Your task to perform on an android device: manage bookmarks in the chrome app Image 0: 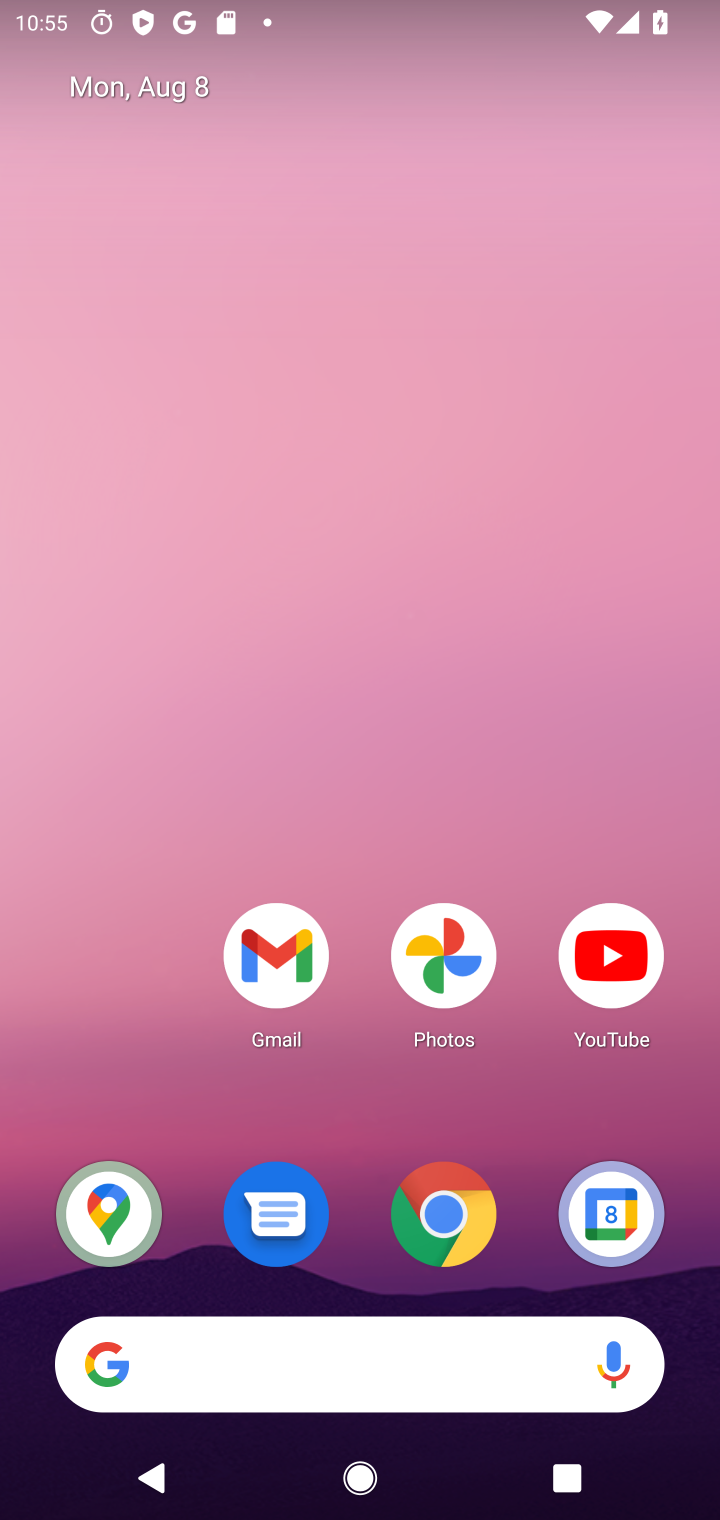
Step 0: click (422, 1181)
Your task to perform on an android device: manage bookmarks in the chrome app Image 1: 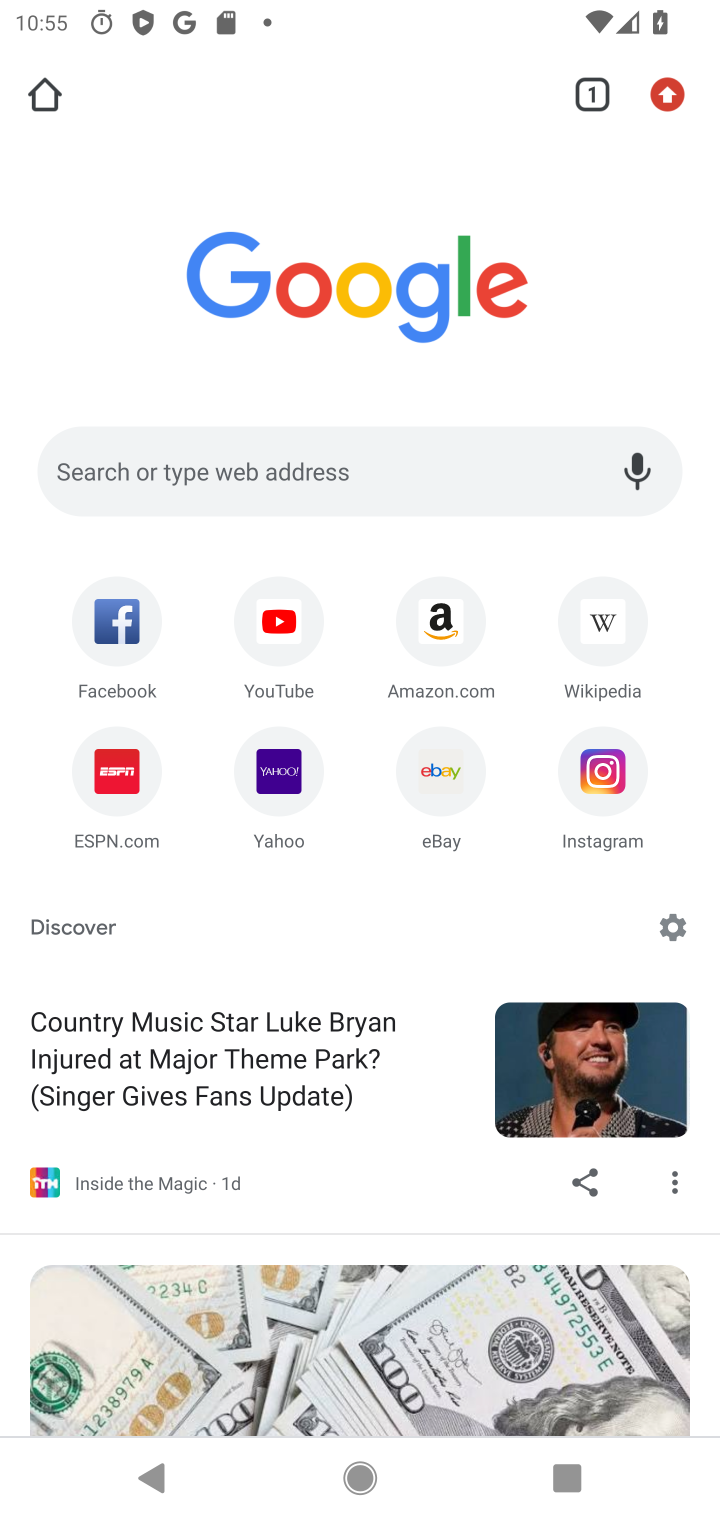
Step 1: click (667, 94)
Your task to perform on an android device: manage bookmarks in the chrome app Image 2: 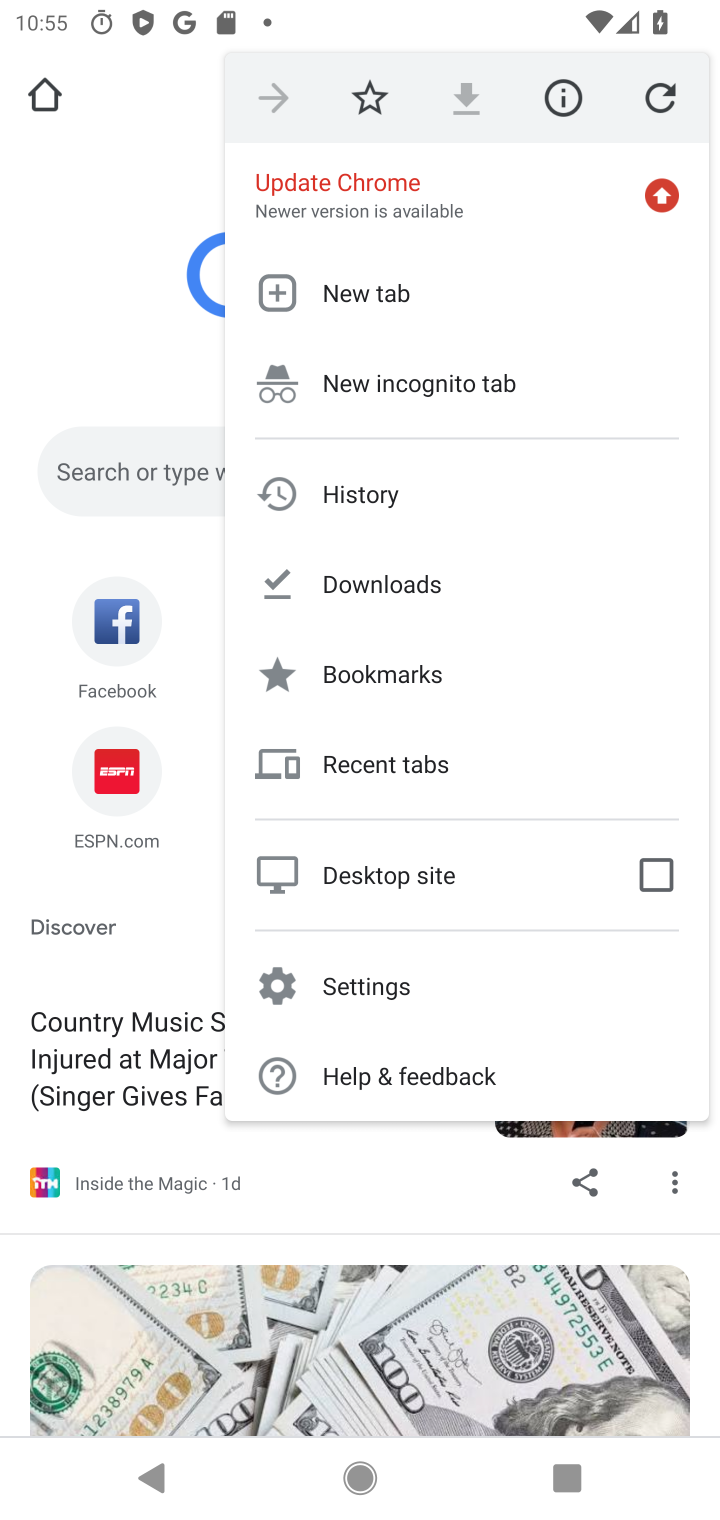
Step 2: click (377, 106)
Your task to perform on an android device: manage bookmarks in the chrome app Image 3: 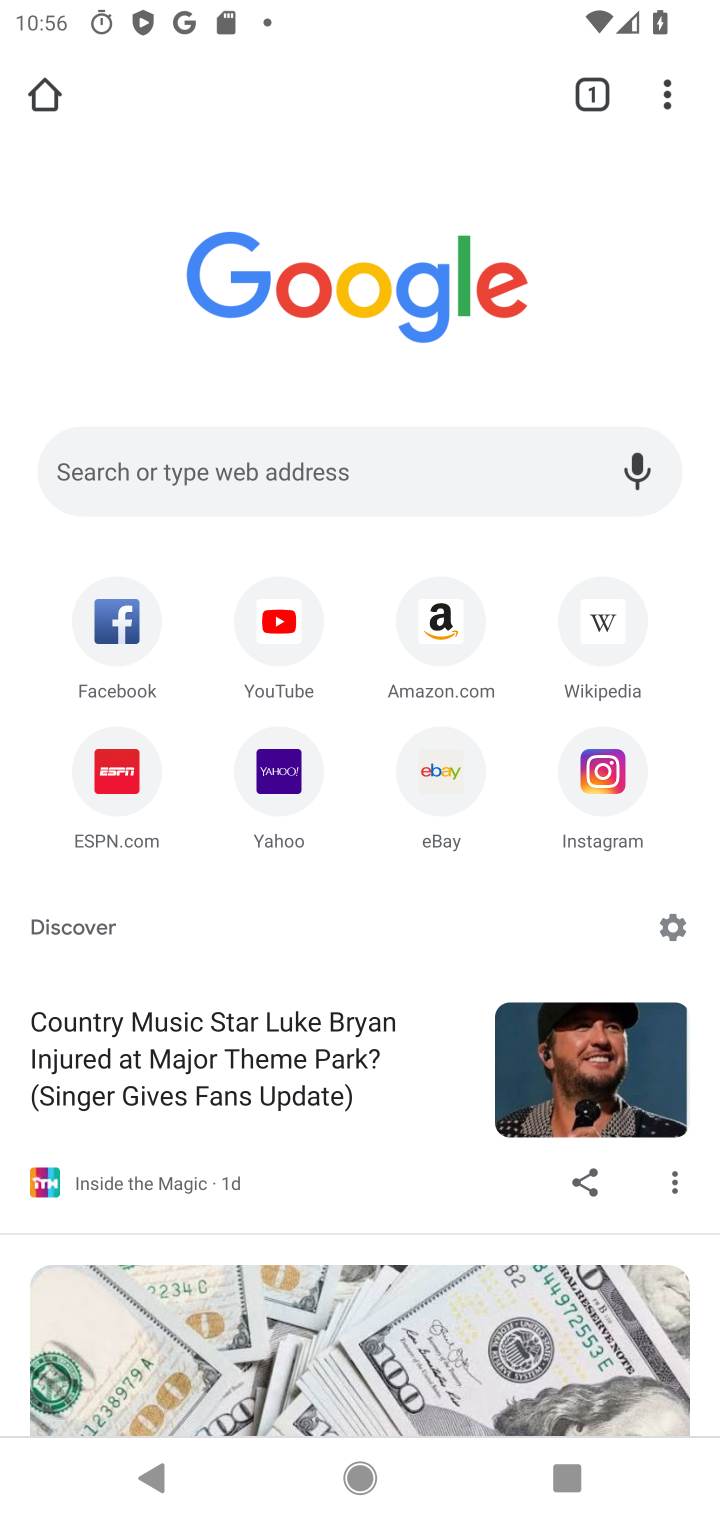
Step 3: task complete